Your task to perform on an android device: Go to network settings Image 0: 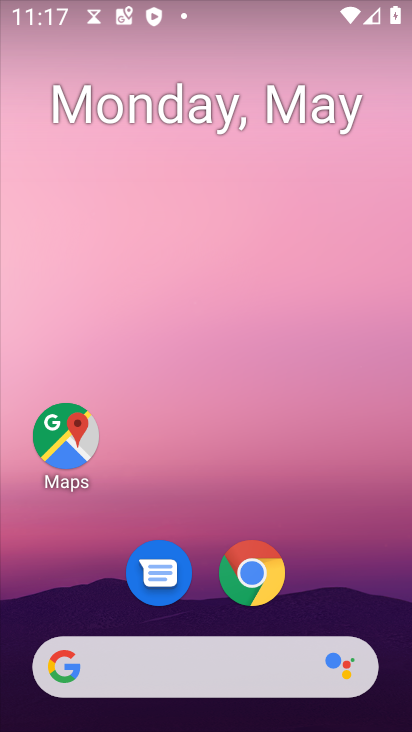
Step 0: drag from (368, 583) to (211, 30)
Your task to perform on an android device: Go to network settings Image 1: 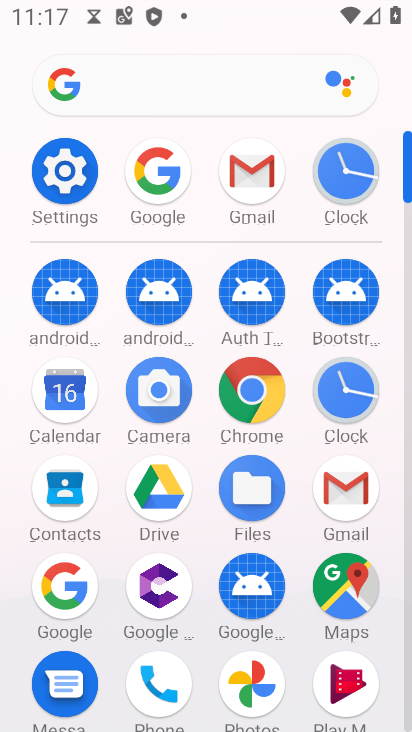
Step 1: click (80, 153)
Your task to perform on an android device: Go to network settings Image 2: 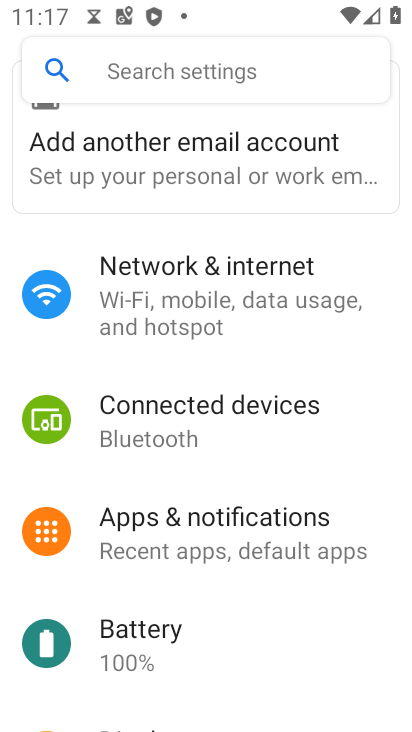
Step 2: click (205, 282)
Your task to perform on an android device: Go to network settings Image 3: 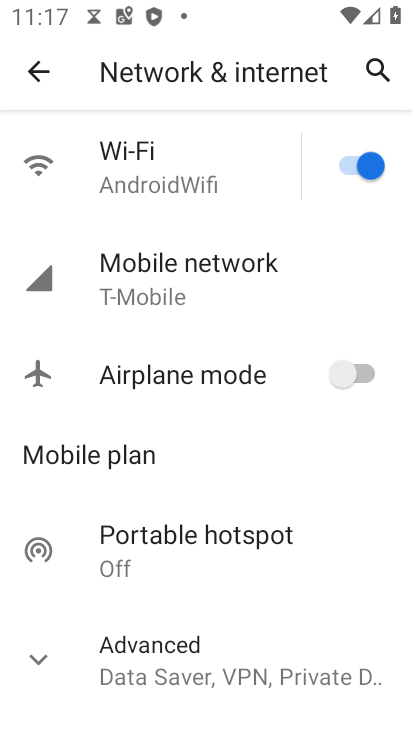
Step 3: task complete